Your task to perform on an android device: Open the phone app and click the voicemail tab. Image 0: 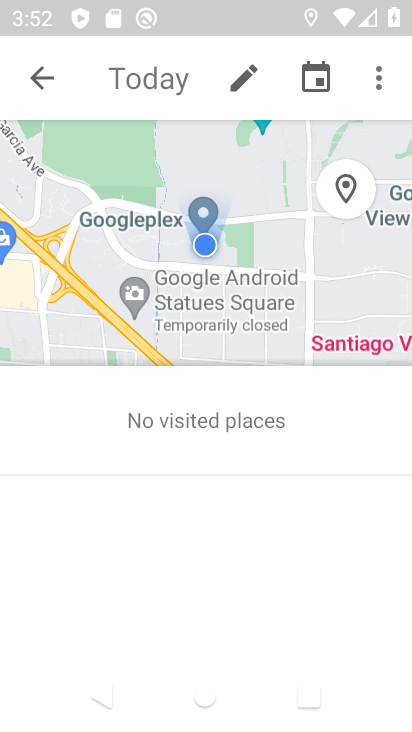
Step 0: press home button
Your task to perform on an android device: Open the phone app and click the voicemail tab. Image 1: 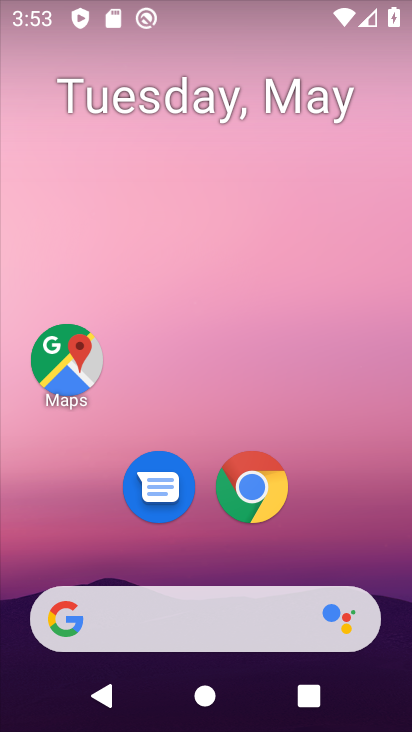
Step 1: drag from (329, 529) to (302, 16)
Your task to perform on an android device: Open the phone app and click the voicemail tab. Image 2: 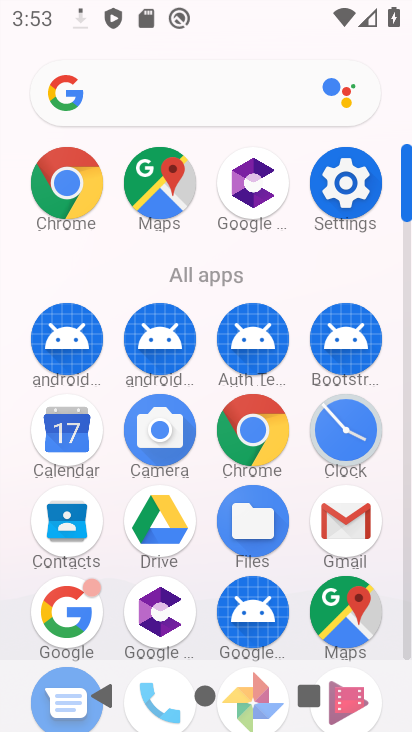
Step 2: drag from (213, 590) to (238, 221)
Your task to perform on an android device: Open the phone app and click the voicemail tab. Image 3: 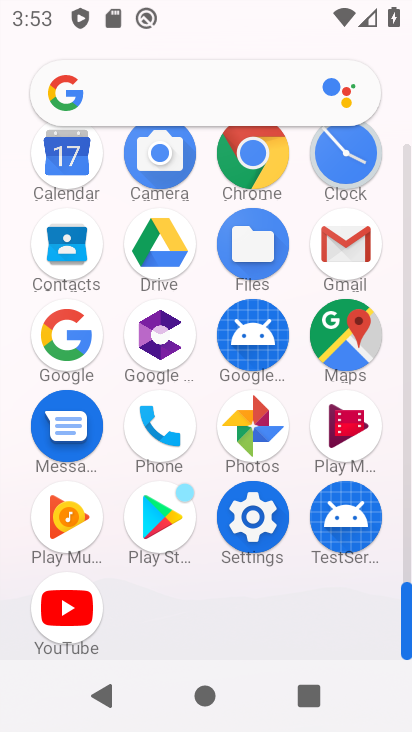
Step 3: click (151, 421)
Your task to perform on an android device: Open the phone app and click the voicemail tab. Image 4: 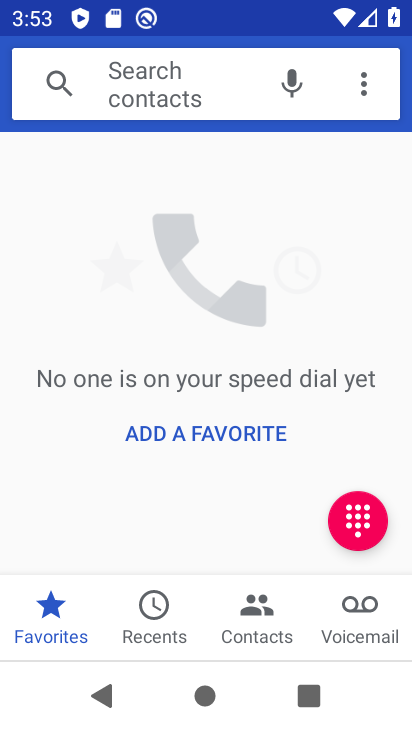
Step 4: click (368, 622)
Your task to perform on an android device: Open the phone app and click the voicemail tab. Image 5: 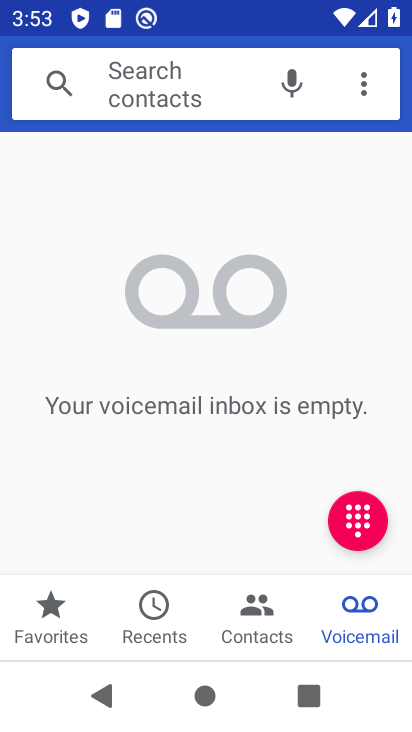
Step 5: task complete